Your task to perform on an android device: Open sound settings Image 0: 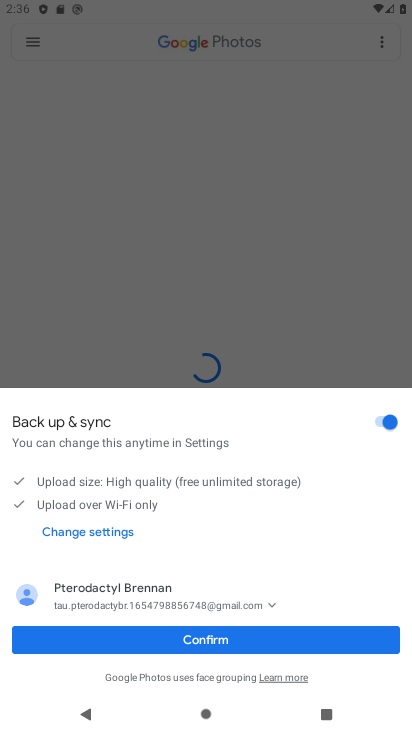
Step 0: press home button
Your task to perform on an android device: Open sound settings Image 1: 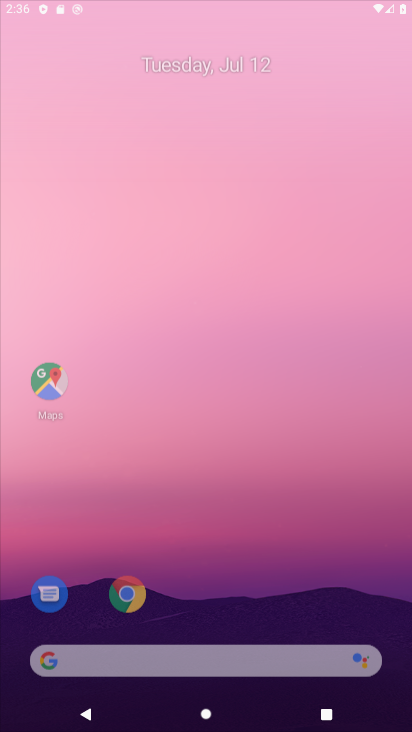
Step 1: press home button
Your task to perform on an android device: Open sound settings Image 2: 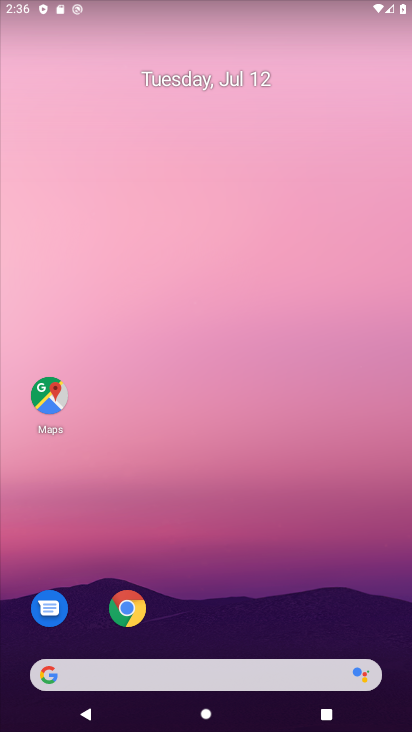
Step 2: drag from (265, 598) to (265, 56)
Your task to perform on an android device: Open sound settings Image 3: 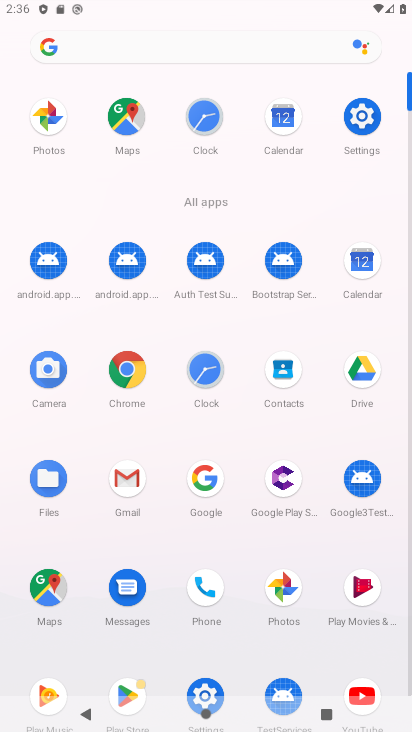
Step 3: click (366, 107)
Your task to perform on an android device: Open sound settings Image 4: 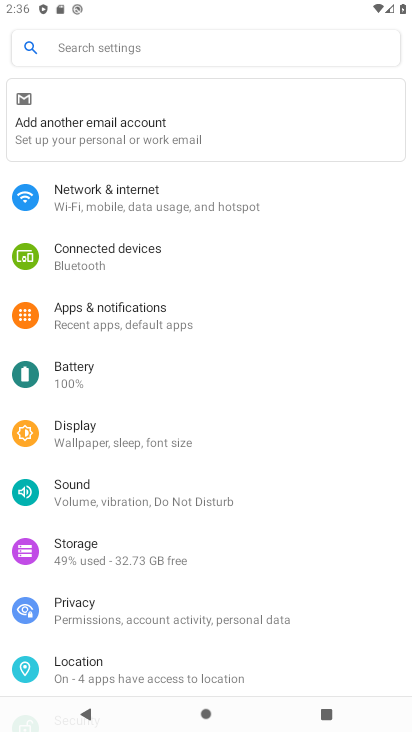
Step 4: click (98, 492)
Your task to perform on an android device: Open sound settings Image 5: 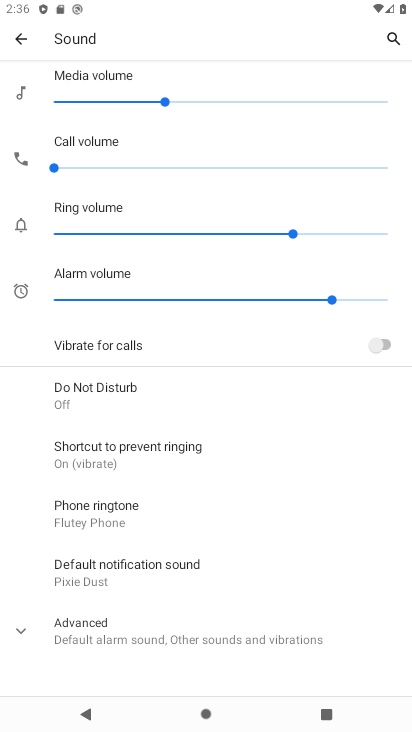
Step 5: task complete